Your task to perform on an android device: remove spam from my inbox in the gmail app Image 0: 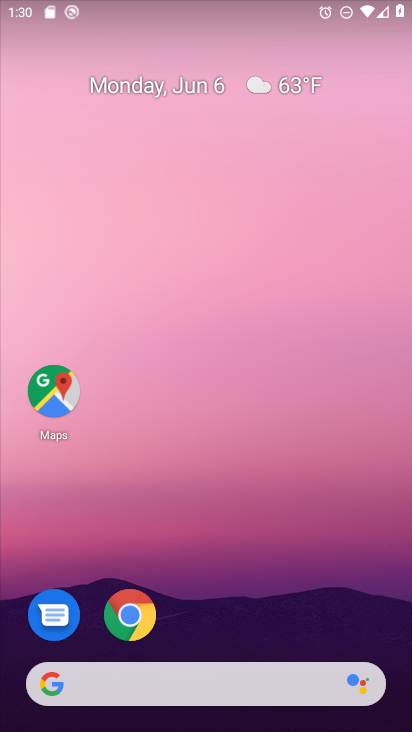
Step 0: drag from (263, 618) to (236, 17)
Your task to perform on an android device: remove spam from my inbox in the gmail app Image 1: 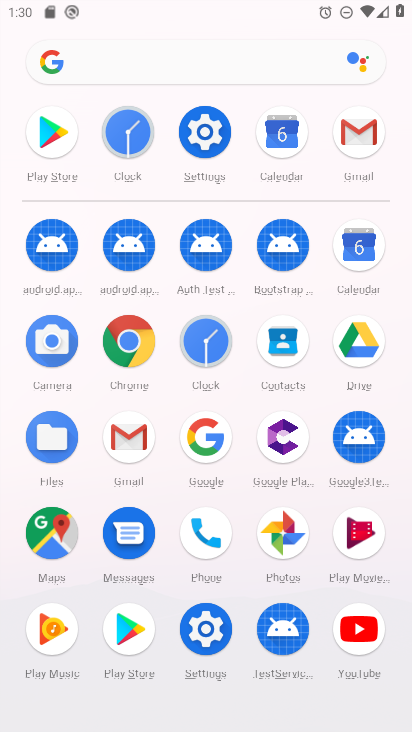
Step 1: click (128, 445)
Your task to perform on an android device: remove spam from my inbox in the gmail app Image 2: 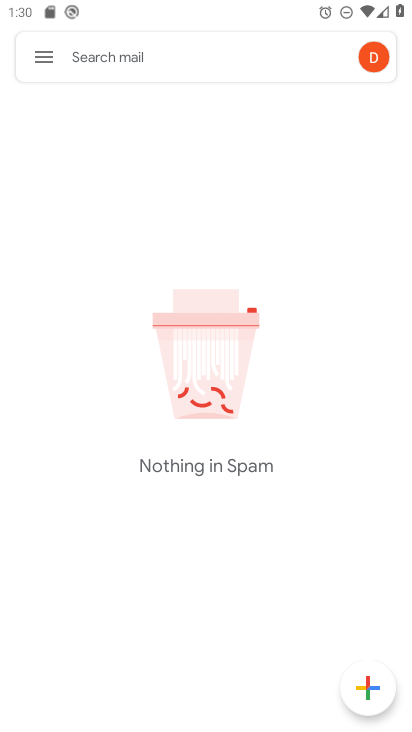
Step 2: task complete